Your task to perform on an android device: open app "The Home Depot" (install if not already installed) Image 0: 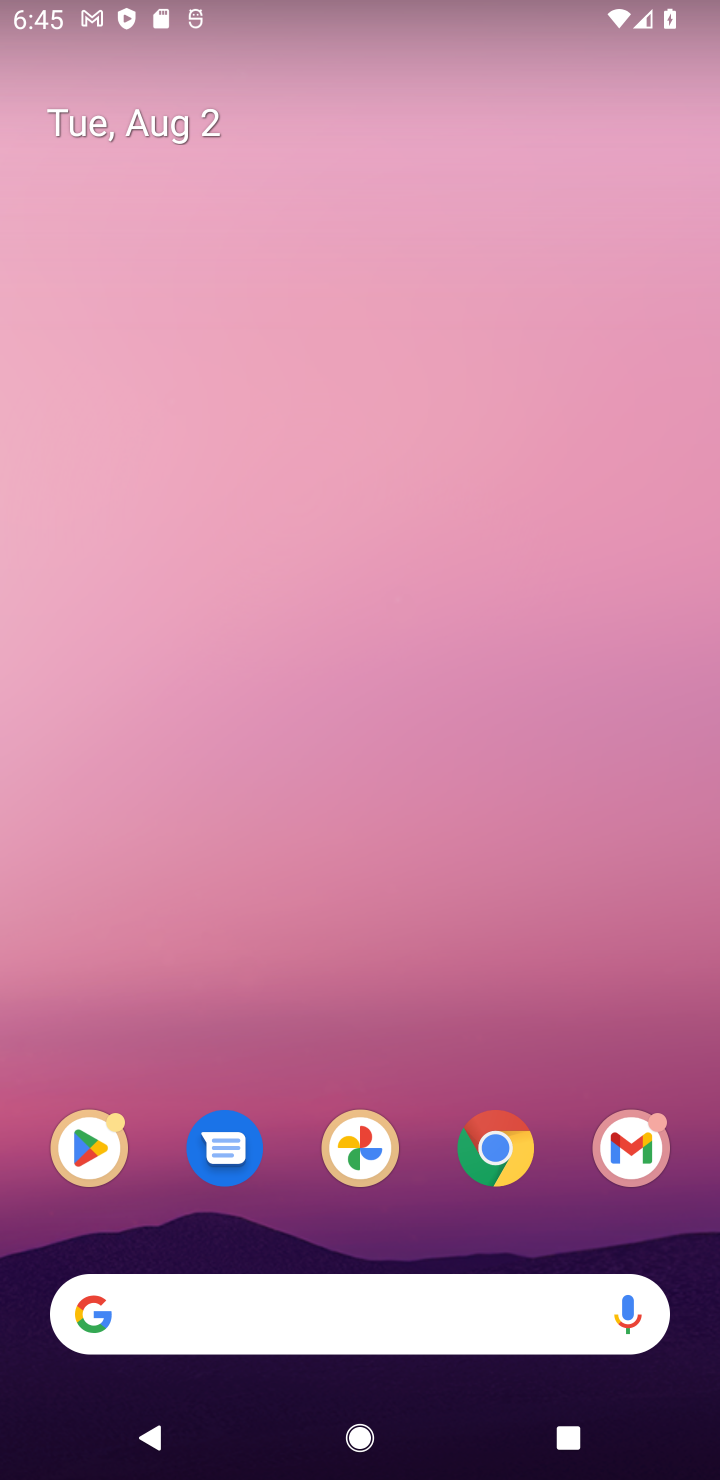
Step 0: drag from (439, 1051) to (115, 270)
Your task to perform on an android device: open app "The Home Depot" (install if not already installed) Image 1: 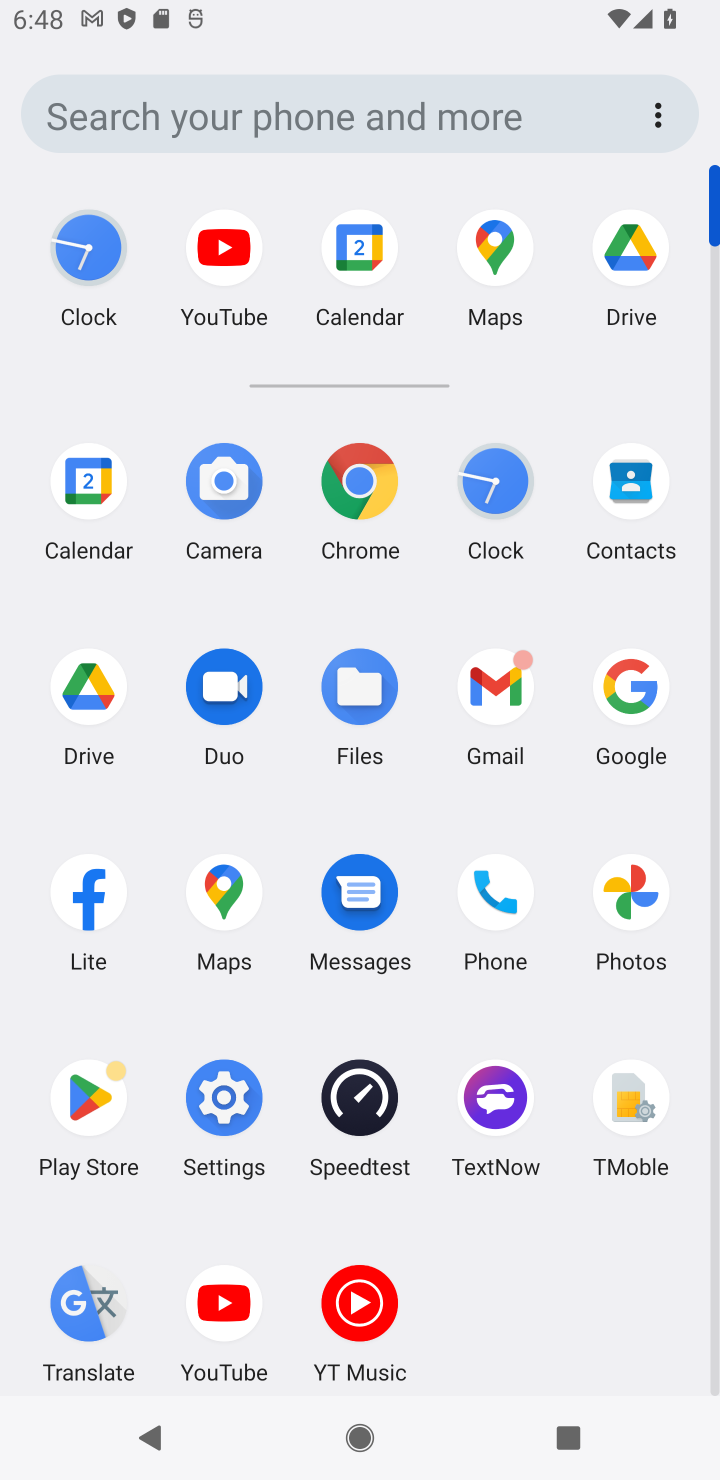
Step 1: click (57, 1087)
Your task to perform on an android device: open app "The Home Depot" (install if not already installed) Image 2: 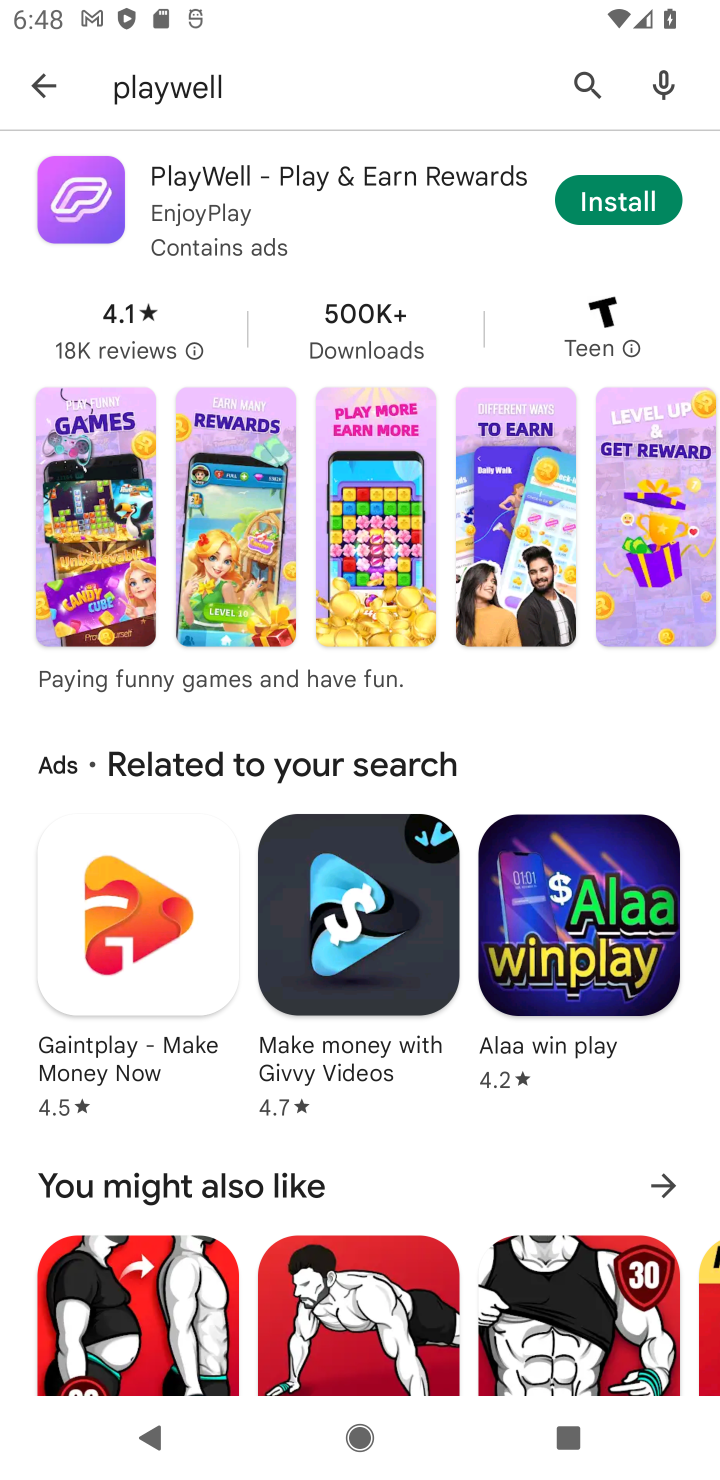
Step 2: press back button
Your task to perform on an android device: open app "The Home Depot" (install if not already installed) Image 3: 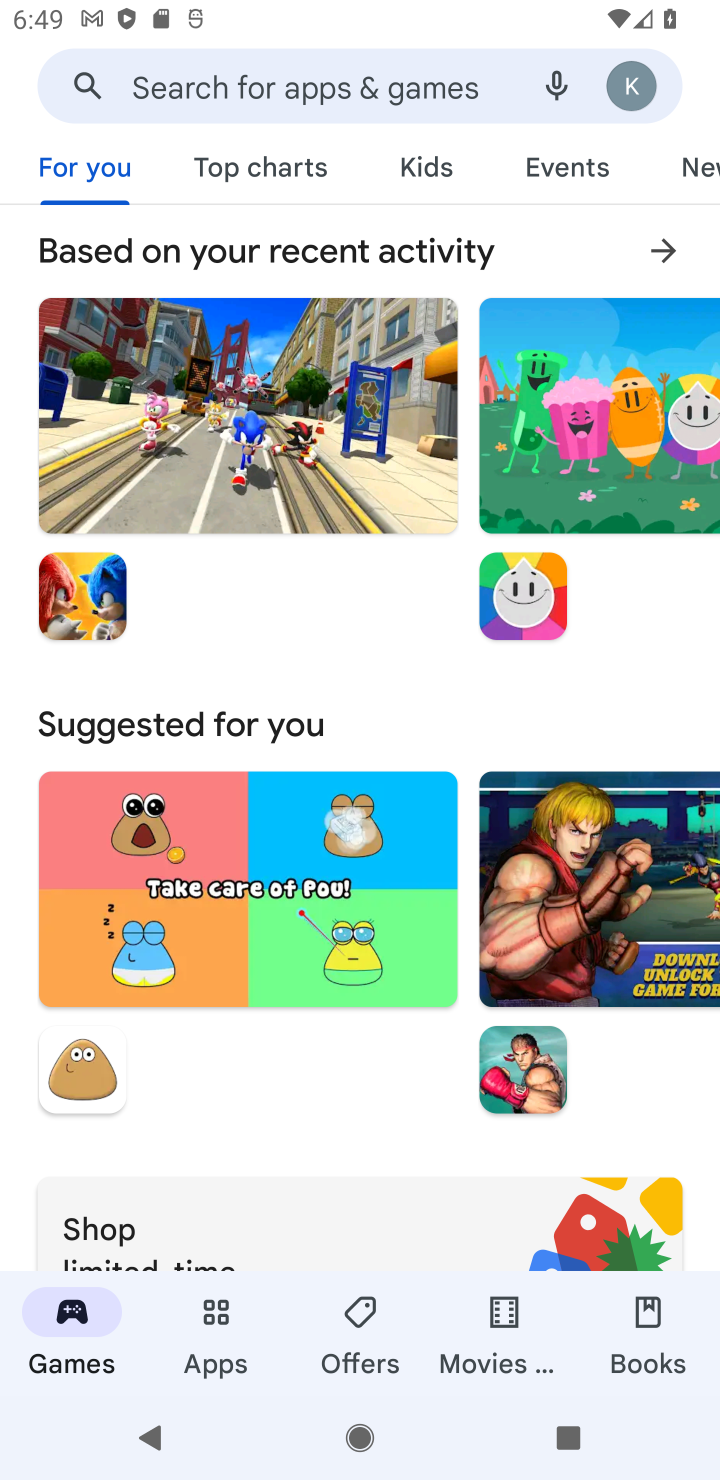
Step 3: click (244, 90)
Your task to perform on an android device: open app "The Home Depot" (install if not already installed) Image 4: 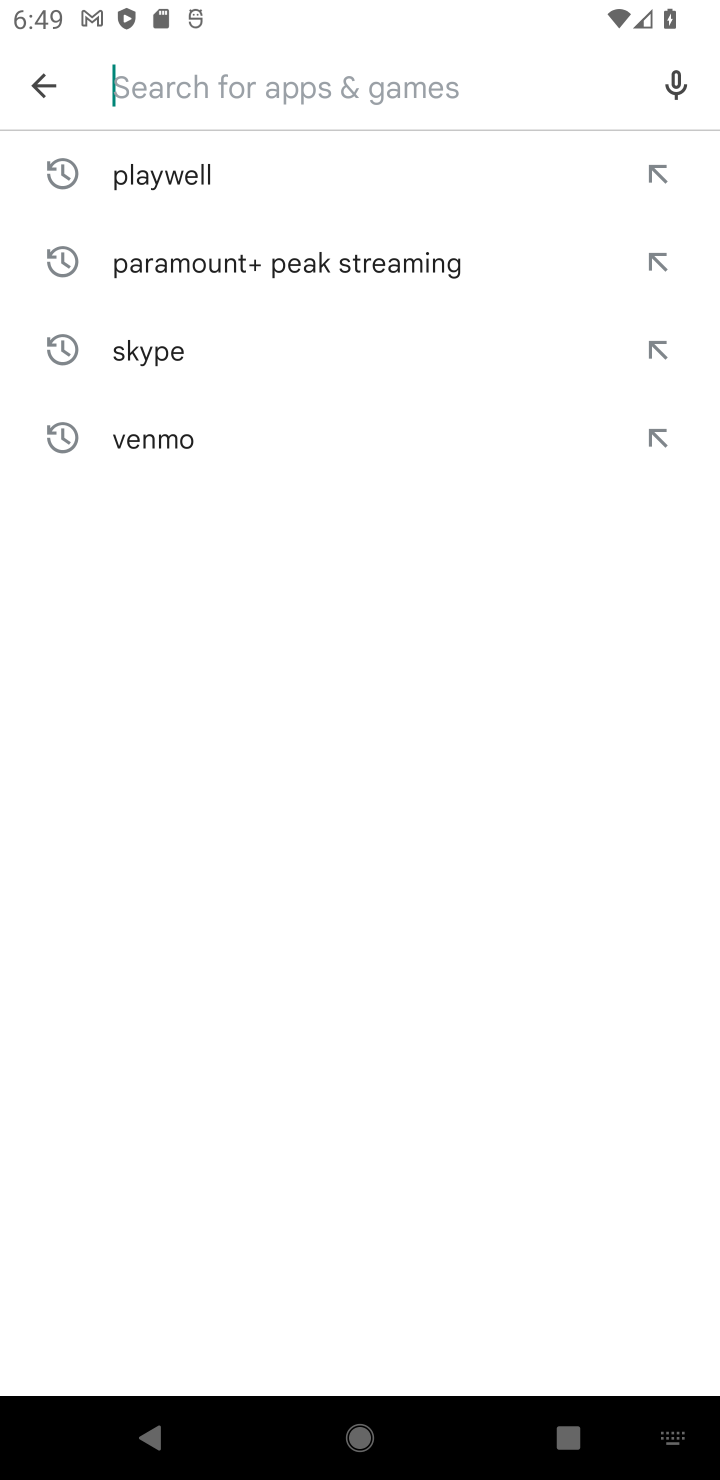
Step 4: type "The Home Depot"
Your task to perform on an android device: open app "The Home Depot" (install if not already installed) Image 5: 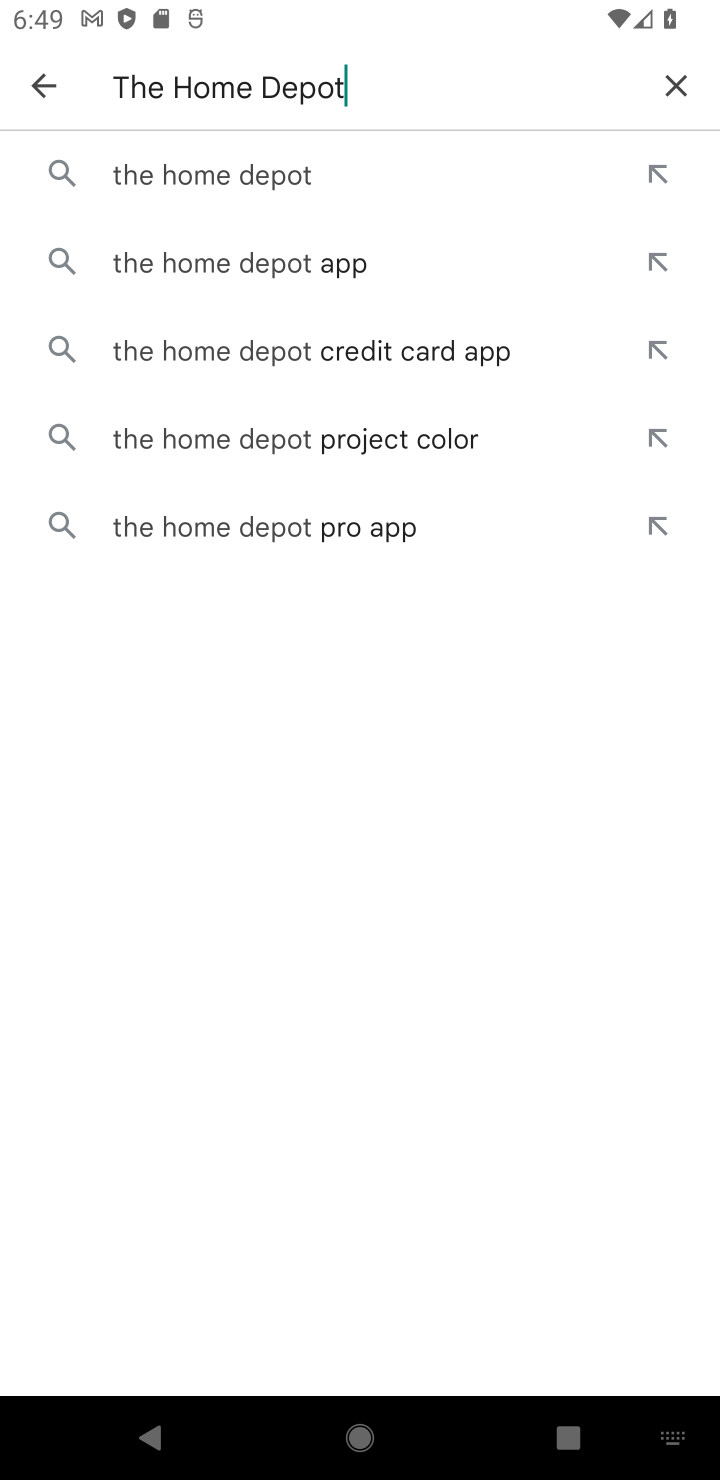
Step 5: click (340, 175)
Your task to perform on an android device: open app "The Home Depot" (install if not already installed) Image 6: 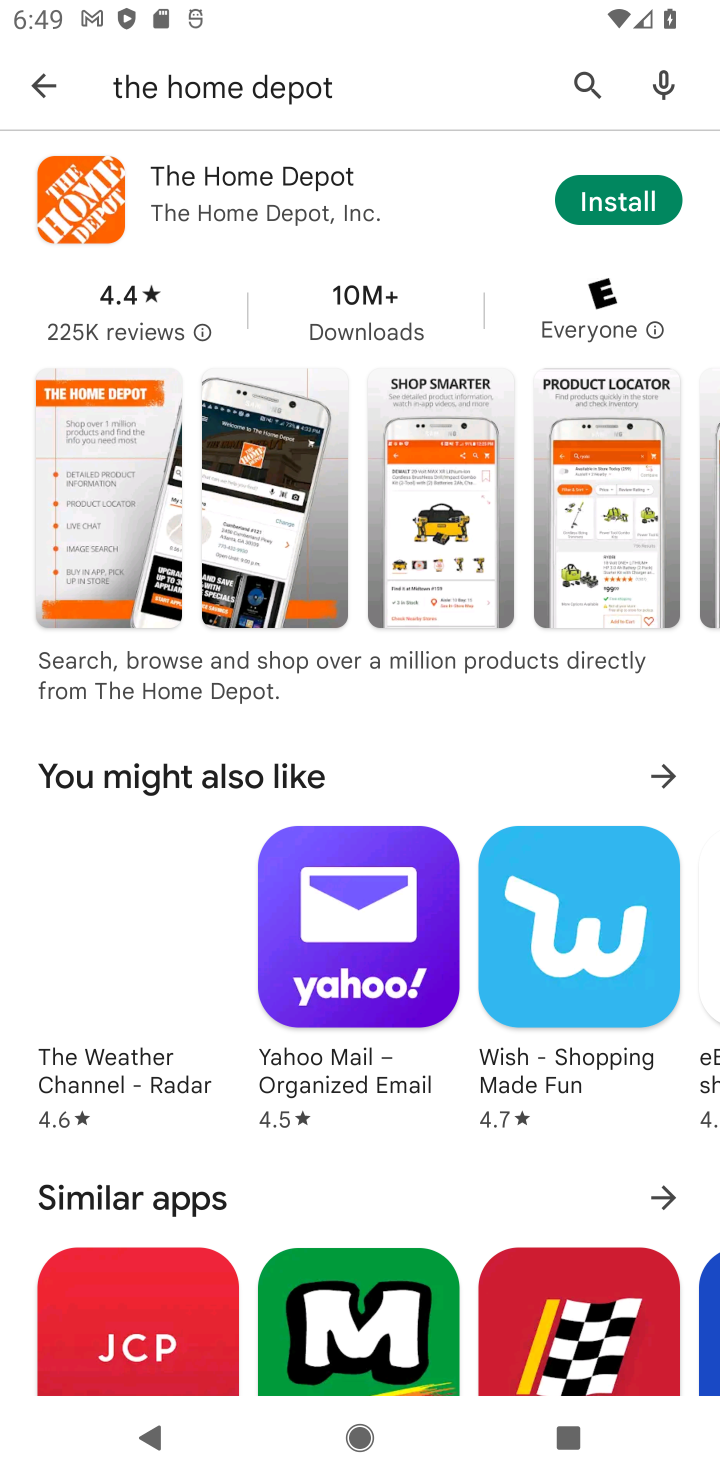
Step 6: task complete